Your task to perform on an android device: Go to settings Image 0: 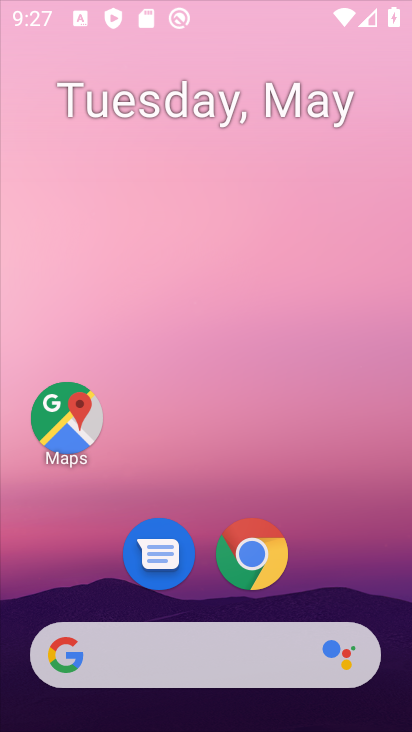
Step 0: click (163, 510)
Your task to perform on an android device: Go to settings Image 1: 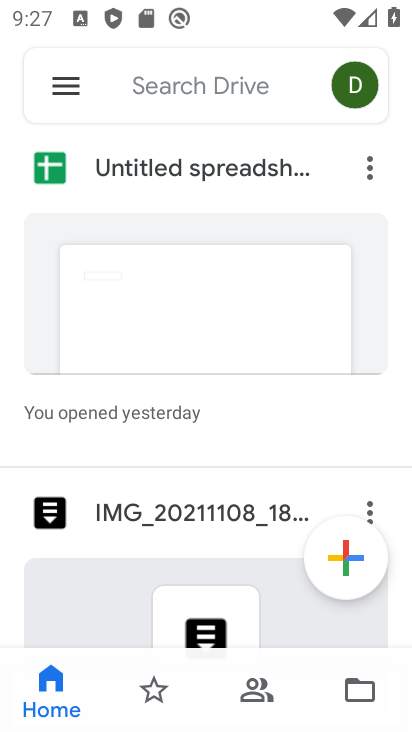
Step 1: drag from (183, 11) to (214, 344)
Your task to perform on an android device: Go to settings Image 2: 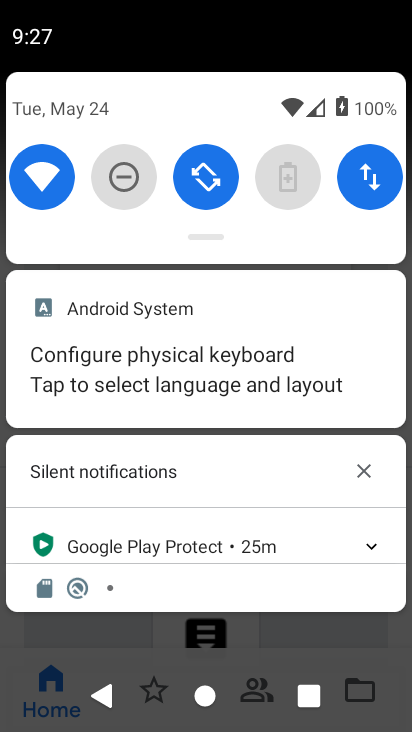
Step 2: drag from (197, 229) to (215, 654)
Your task to perform on an android device: Go to settings Image 3: 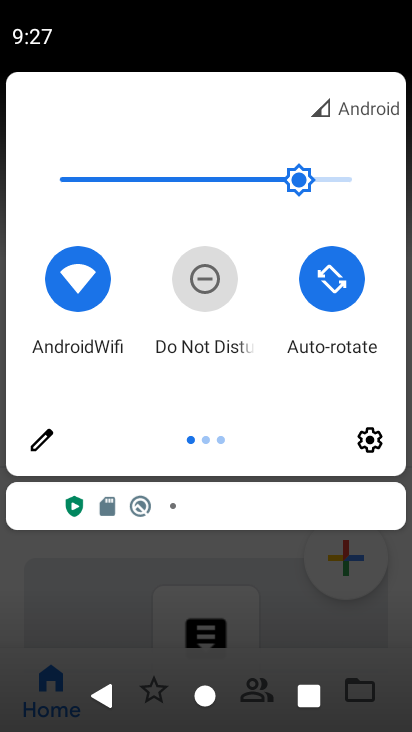
Step 3: click (375, 446)
Your task to perform on an android device: Go to settings Image 4: 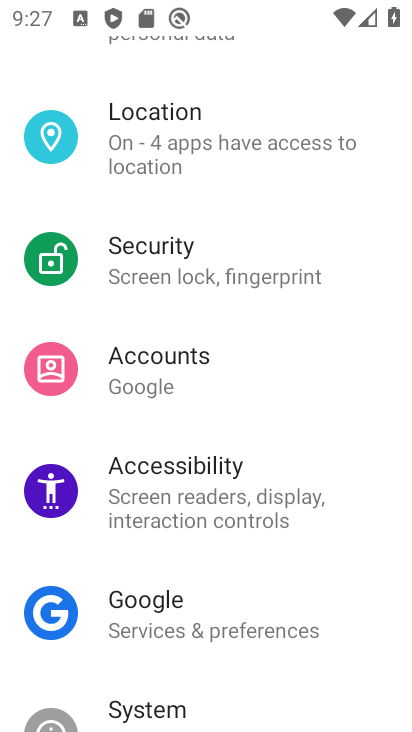
Step 4: task complete